Your task to perform on an android device: set the stopwatch Image 0: 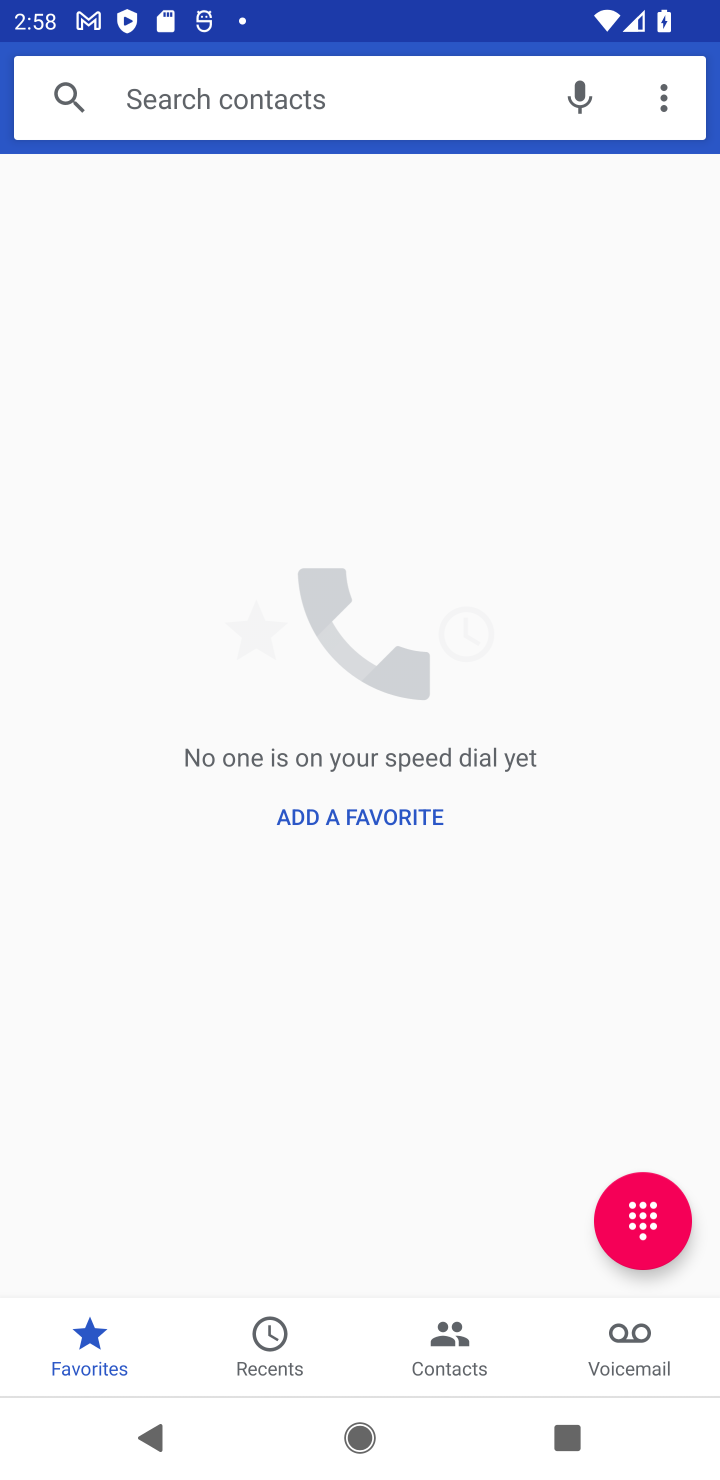
Step 0: press home button
Your task to perform on an android device: set the stopwatch Image 1: 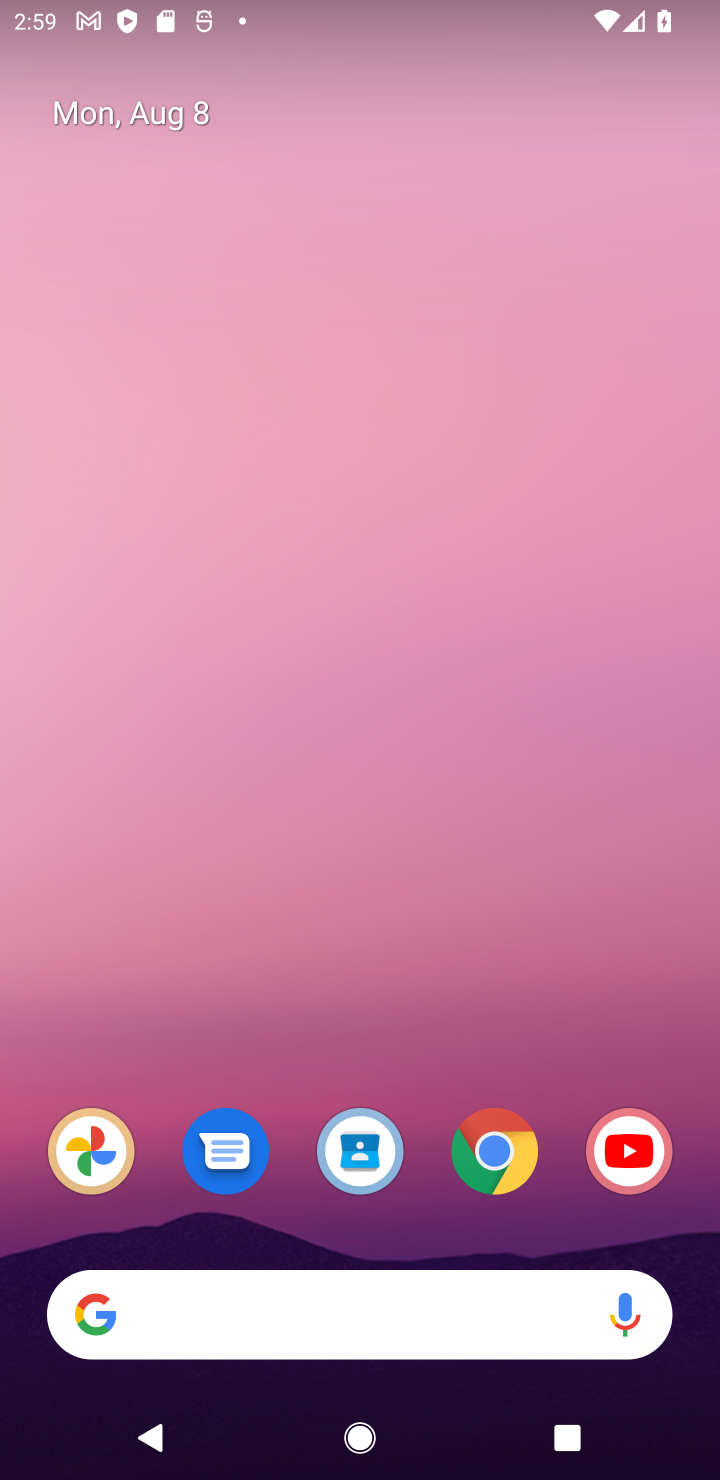
Step 1: drag from (464, 924) to (411, 402)
Your task to perform on an android device: set the stopwatch Image 2: 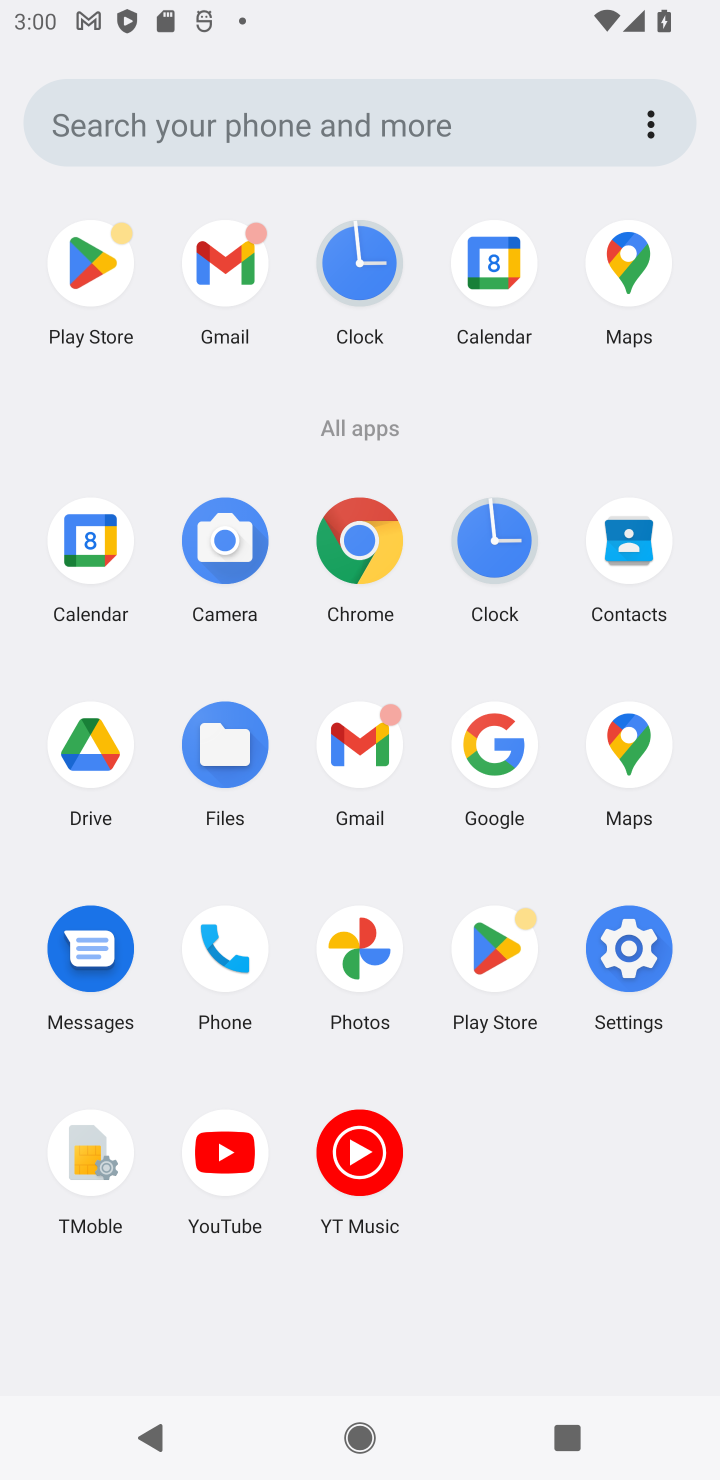
Step 2: click (491, 544)
Your task to perform on an android device: set the stopwatch Image 3: 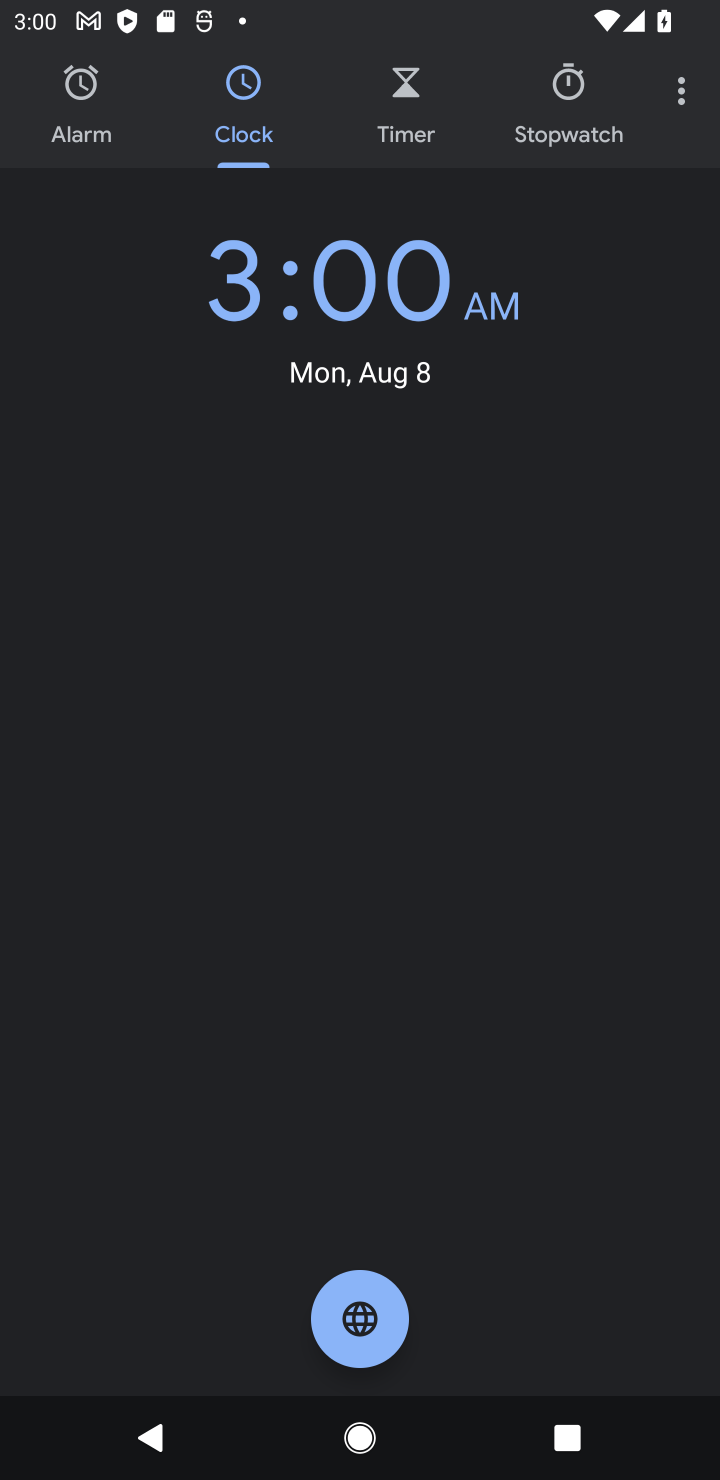
Step 3: click (587, 122)
Your task to perform on an android device: set the stopwatch Image 4: 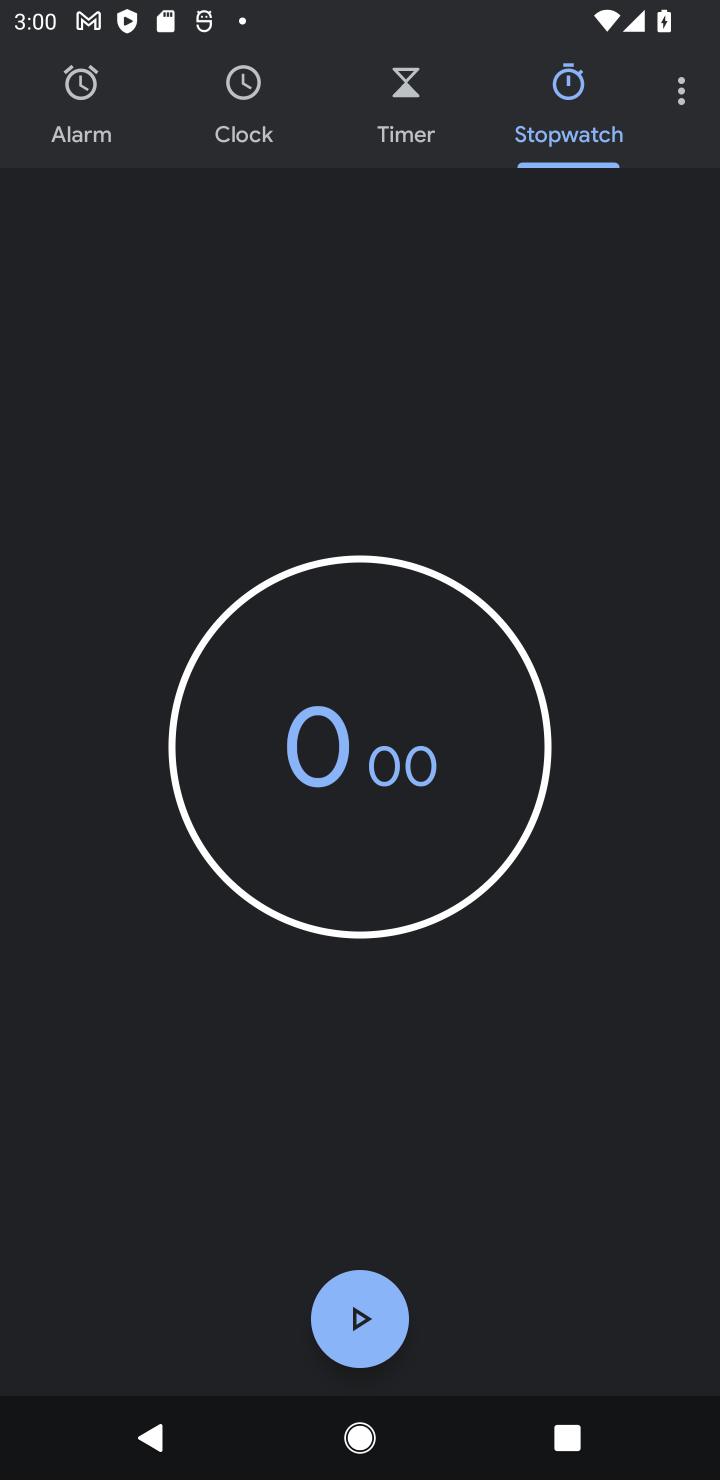
Step 4: click (358, 1337)
Your task to perform on an android device: set the stopwatch Image 5: 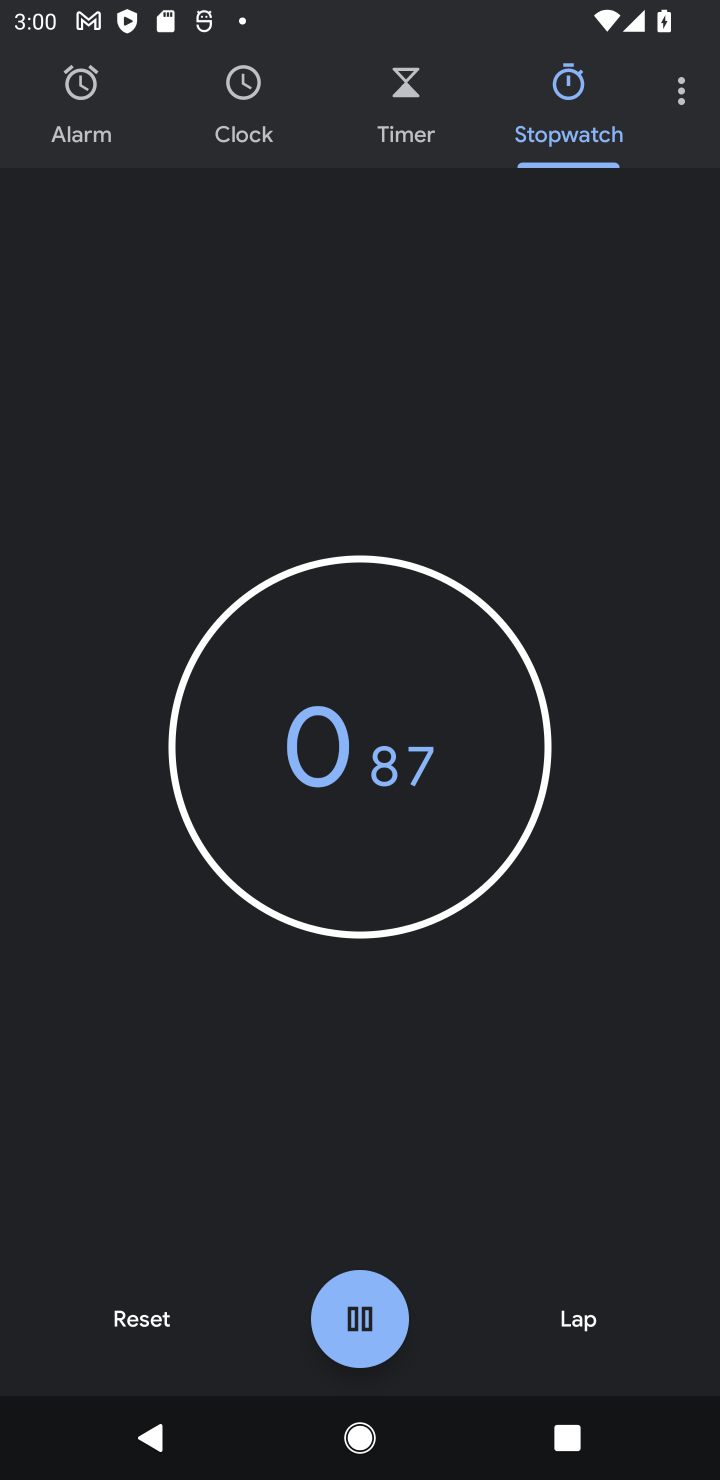
Step 5: task complete